Your task to perform on an android device: check storage Image 0: 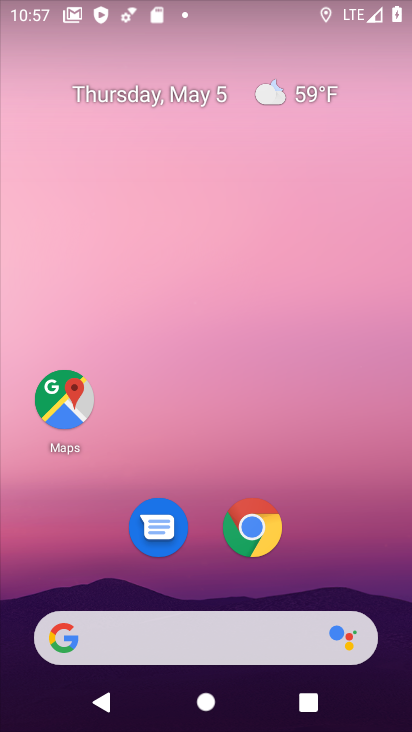
Step 0: drag from (212, 595) to (232, 9)
Your task to perform on an android device: check storage Image 1: 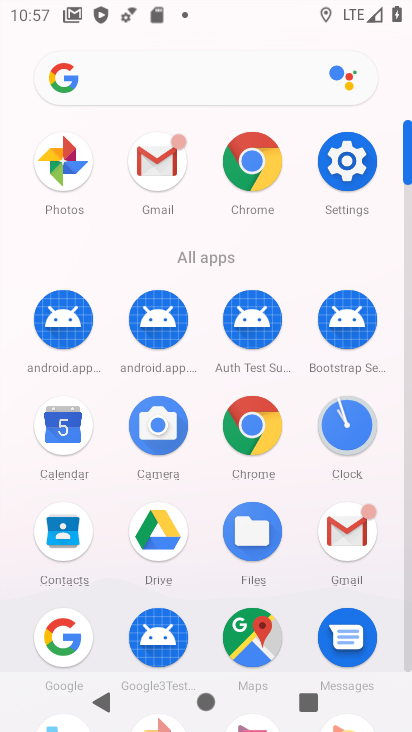
Step 1: click (352, 173)
Your task to perform on an android device: check storage Image 2: 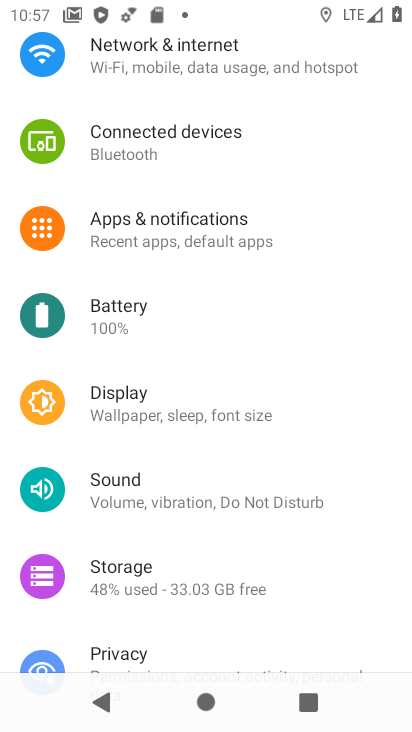
Step 2: click (153, 573)
Your task to perform on an android device: check storage Image 3: 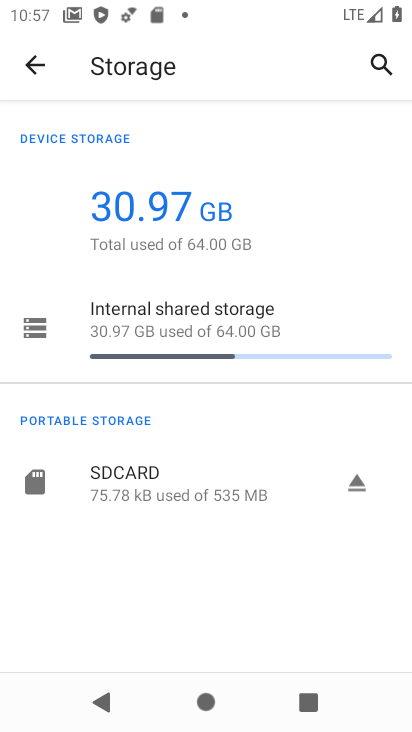
Step 3: click (192, 327)
Your task to perform on an android device: check storage Image 4: 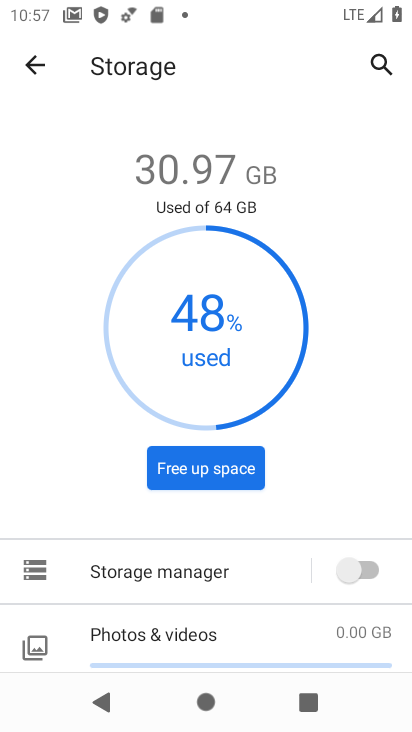
Step 4: task complete